Your task to perform on an android device: Turn on the flashlight Image 0: 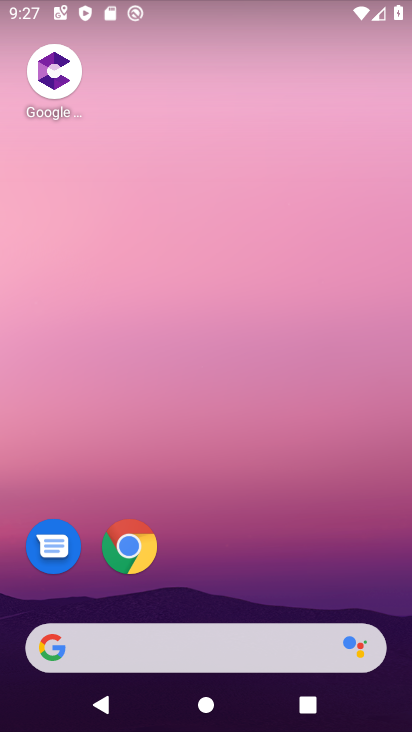
Step 0: drag from (407, 621) to (267, 35)
Your task to perform on an android device: Turn on the flashlight Image 1: 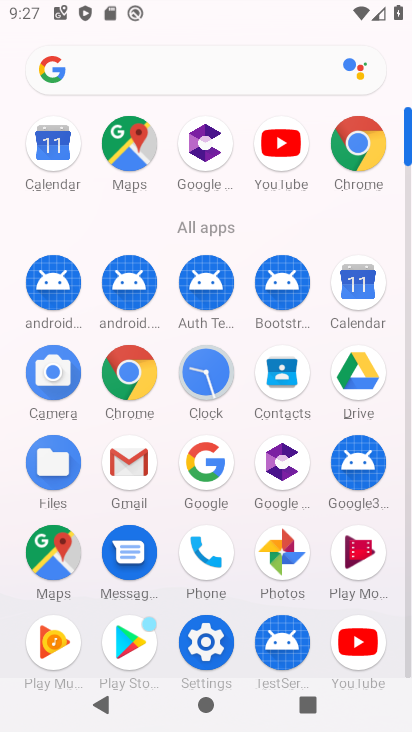
Step 1: click (210, 647)
Your task to perform on an android device: Turn on the flashlight Image 2: 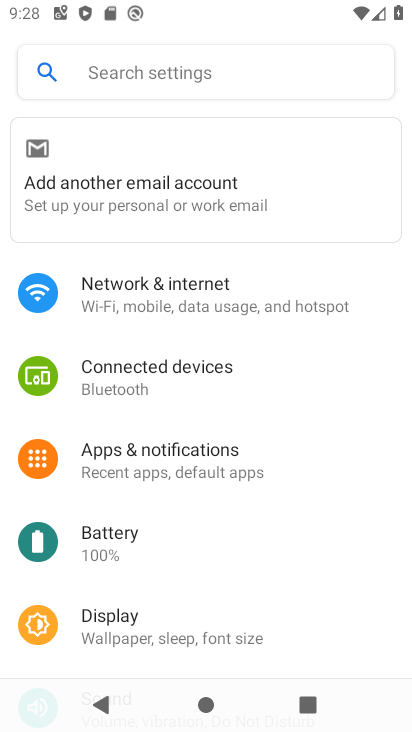
Step 2: task complete